Your task to perform on an android device: When is my next appointment? Image 0: 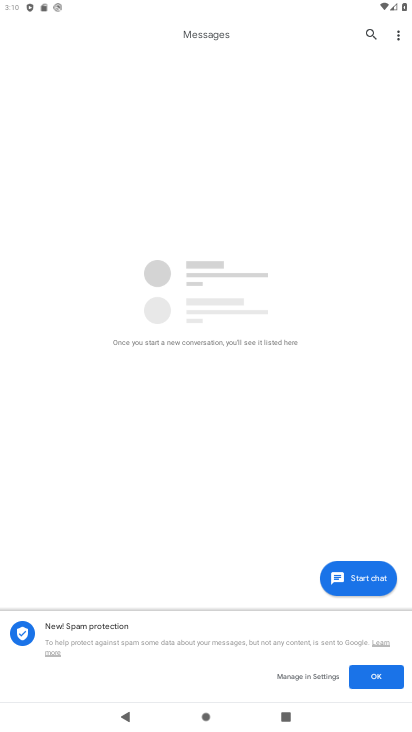
Step 0: press home button
Your task to perform on an android device: When is my next appointment? Image 1: 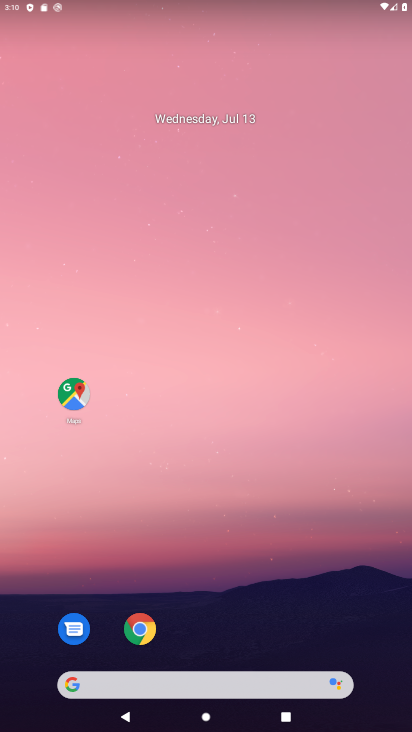
Step 1: drag from (213, 617) to (195, 1)
Your task to perform on an android device: When is my next appointment? Image 2: 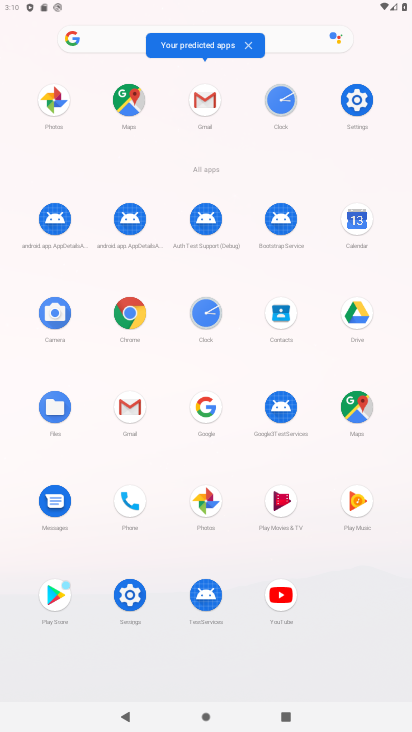
Step 2: click (355, 220)
Your task to perform on an android device: When is my next appointment? Image 3: 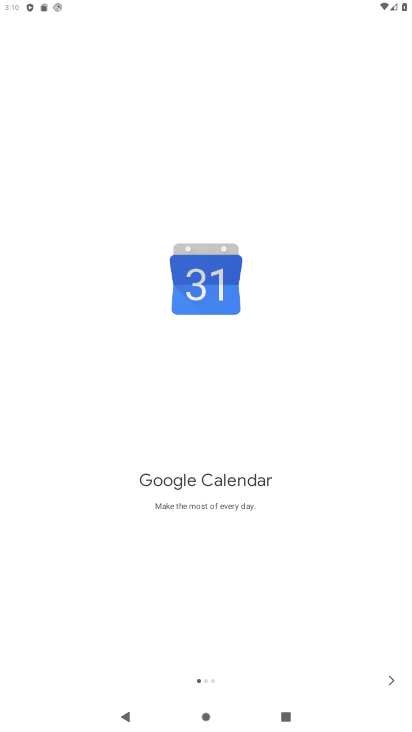
Step 3: click (391, 683)
Your task to perform on an android device: When is my next appointment? Image 4: 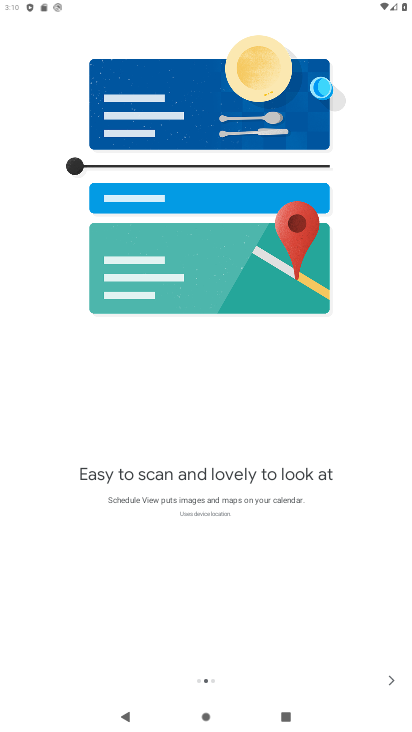
Step 4: click (387, 679)
Your task to perform on an android device: When is my next appointment? Image 5: 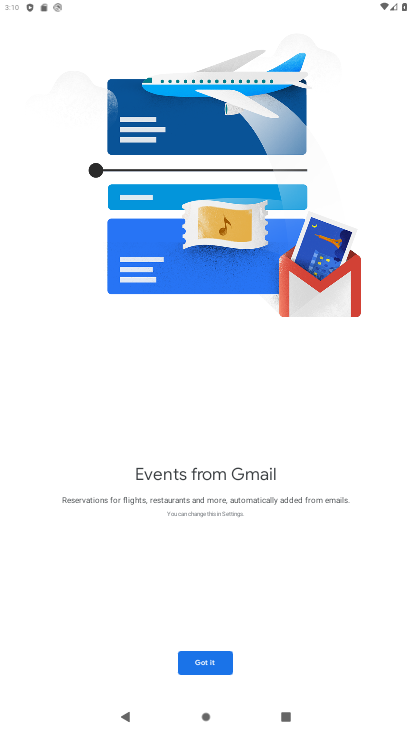
Step 5: click (208, 665)
Your task to perform on an android device: When is my next appointment? Image 6: 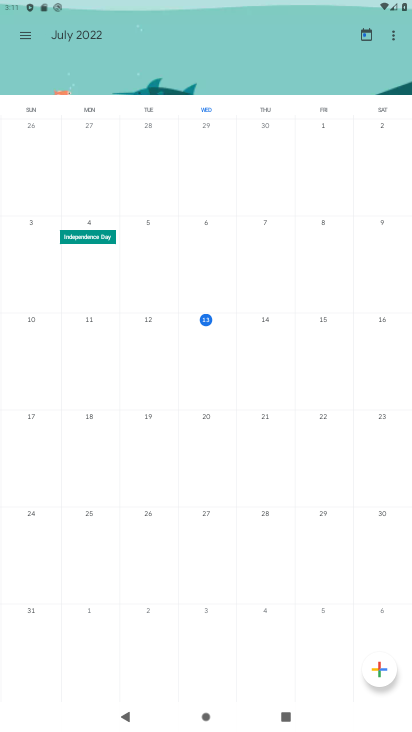
Step 6: click (197, 338)
Your task to perform on an android device: When is my next appointment? Image 7: 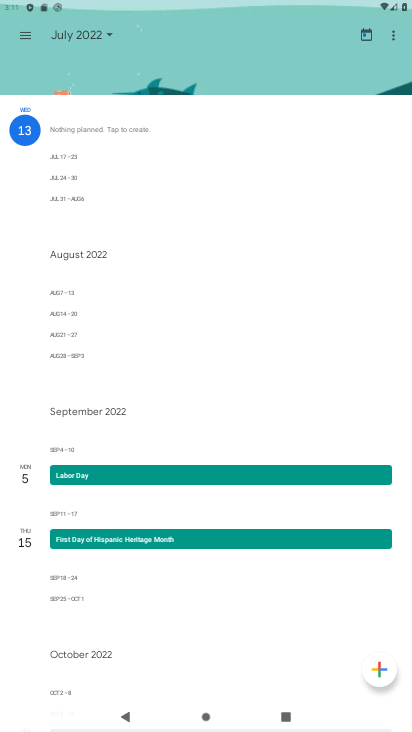
Step 7: task complete